Your task to perform on an android device: turn on bluetooth scan Image 0: 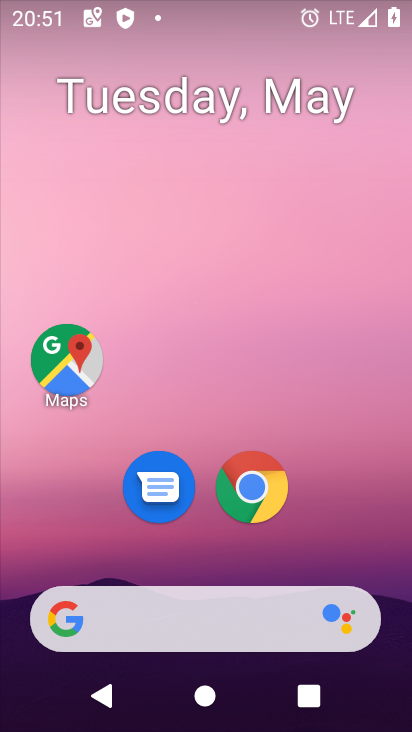
Step 0: drag from (326, 536) to (192, 42)
Your task to perform on an android device: turn on bluetooth scan Image 1: 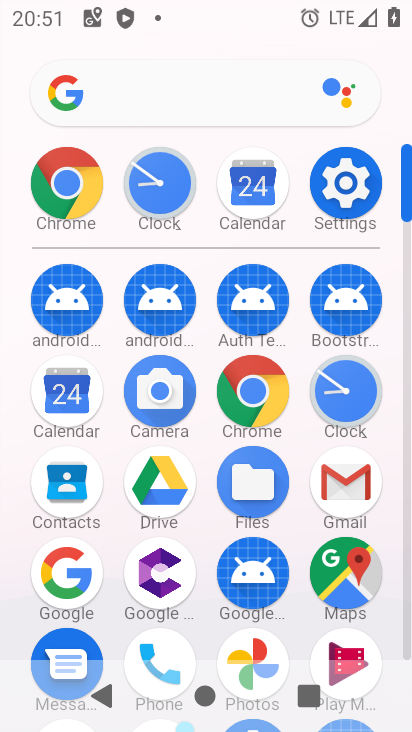
Step 1: click (347, 182)
Your task to perform on an android device: turn on bluetooth scan Image 2: 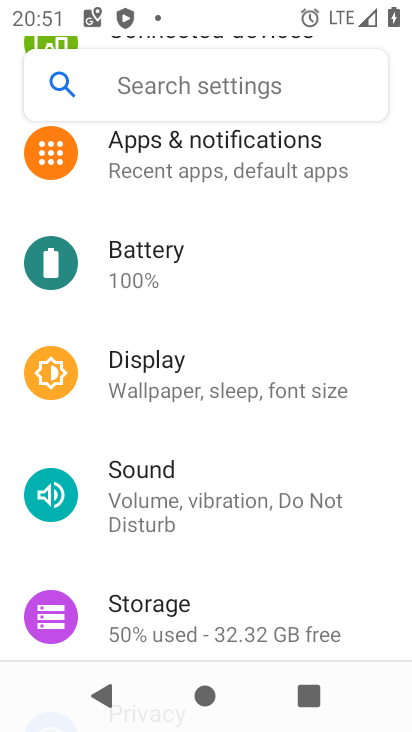
Step 2: drag from (261, 563) to (198, 148)
Your task to perform on an android device: turn on bluetooth scan Image 3: 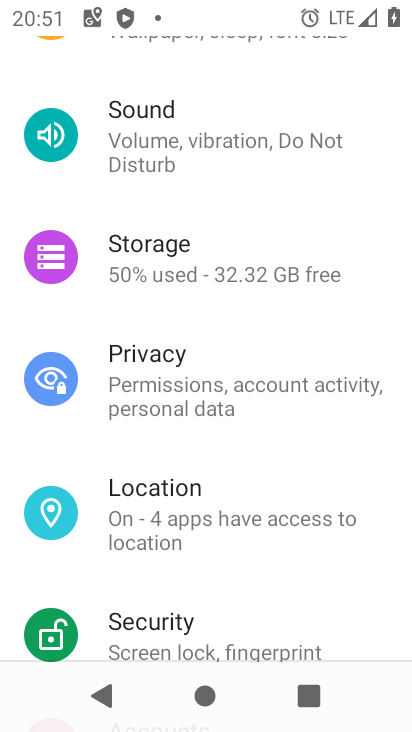
Step 3: drag from (248, 585) to (215, 349)
Your task to perform on an android device: turn on bluetooth scan Image 4: 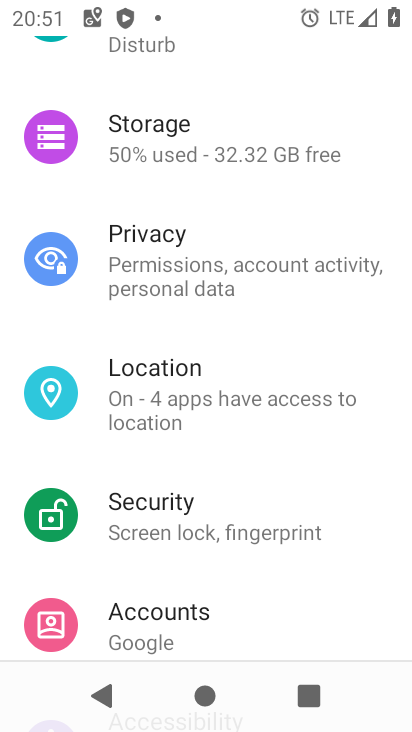
Step 4: click (161, 363)
Your task to perform on an android device: turn on bluetooth scan Image 5: 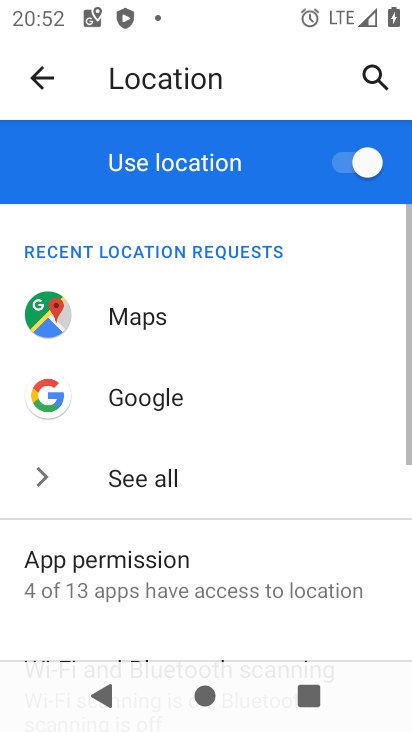
Step 5: drag from (199, 556) to (128, 319)
Your task to perform on an android device: turn on bluetooth scan Image 6: 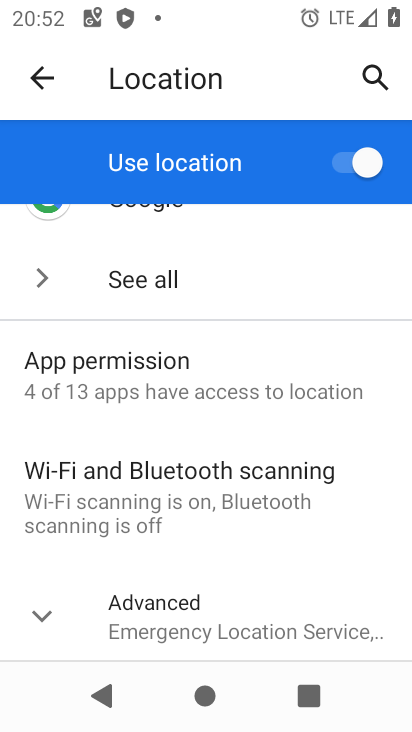
Step 6: click (116, 473)
Your task to perform on an android device: turn on bluetooth scan Image 7: 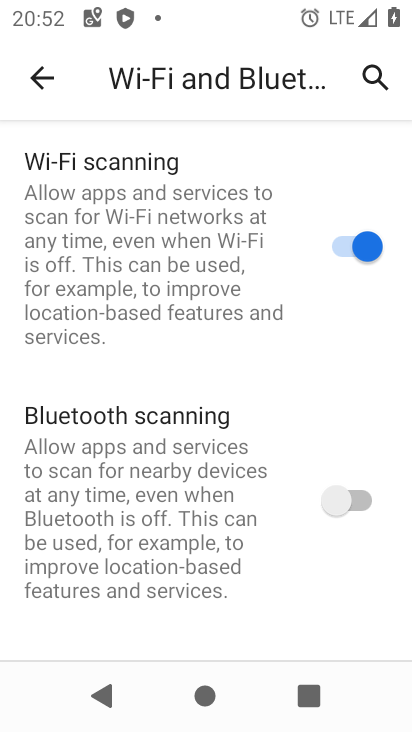
Step 7: click (335, 496)
Your task to perform on an android device: turn on bluetooth scan Image 8: 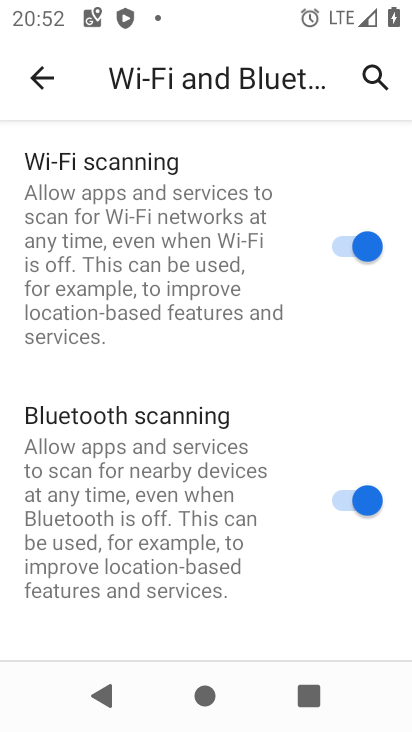
Step 8: task complete